Your task to perform on an android device: Search for sushi restaurants on Maps Image 0: 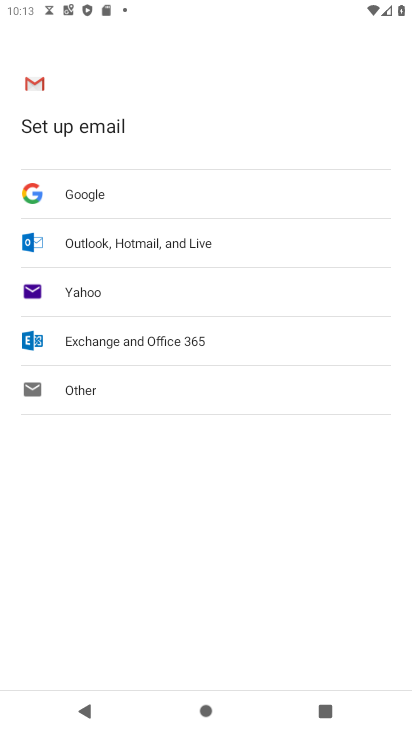
Step 0: press home button
Your task to perform on an android device: Search for sushi restaurants on Maps Image 1: 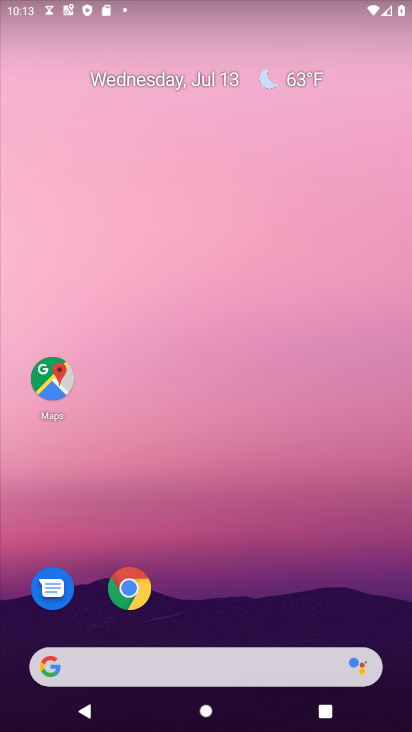
Step 1: click (52, 365)
Your task to perform on an android device: Search for sushi restaurants on Maps Image 2: 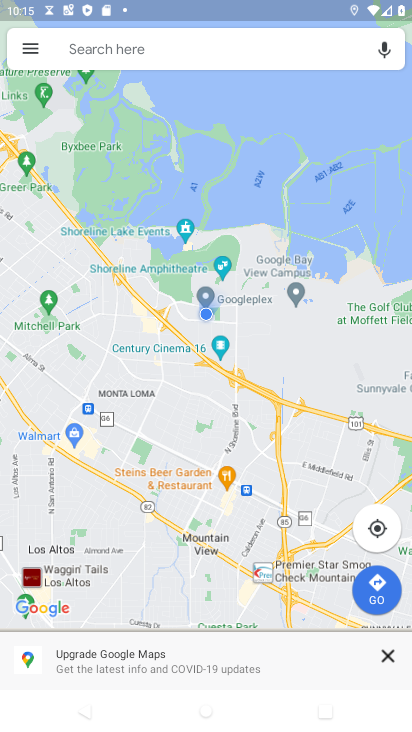
Step 2: click (186, 39)
Your task to perform on an android device: Search for sushi restaurants on Maps Image 3: 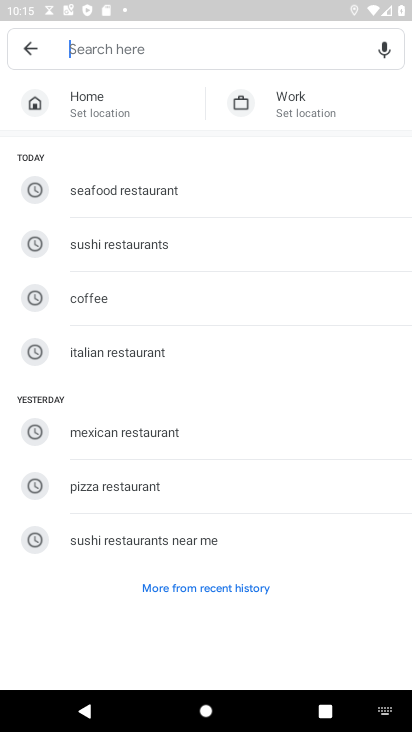
Step 3: click (146, 240)
Your task to perform on an android device: Search for sushi restaurants on Maps Image 4: 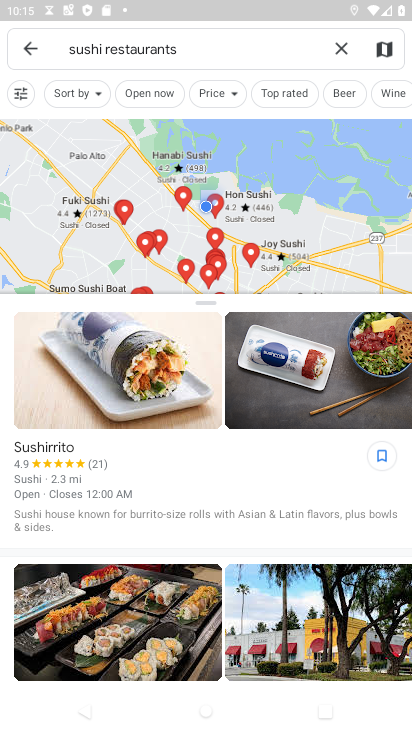
Step 4: task complete